Your task to perform on an android device: turn off translation in the chrome app Image 0: 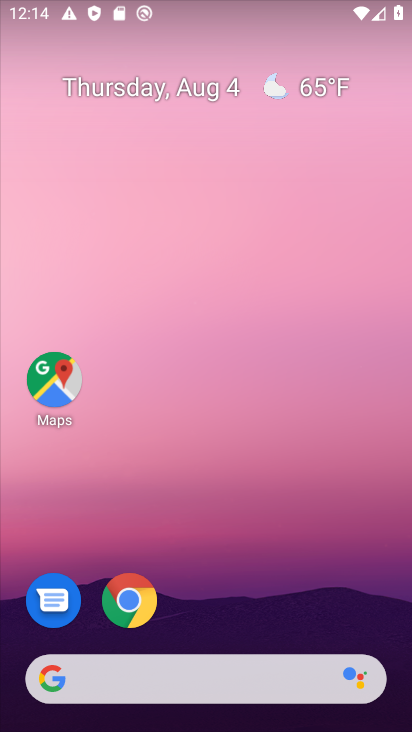
Step 0: drag from (216, 642) to (254, 8)
Your task to perform on an android device: turn off translation in the chrome app Image 1: 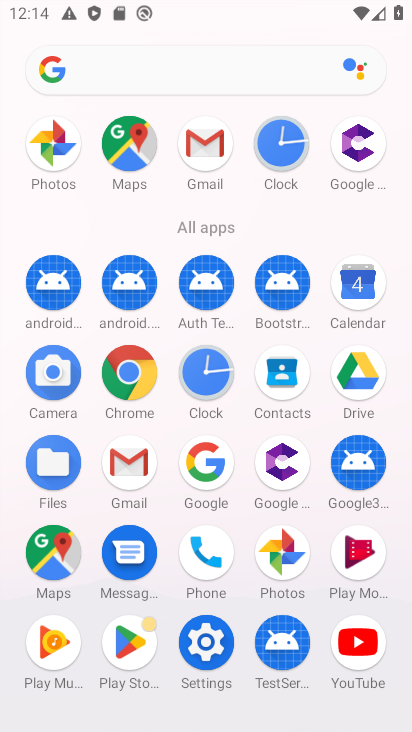
Step 1: click (288, 559)
Your task to perform on an android device: turn off translation in the chrome app Image 2: 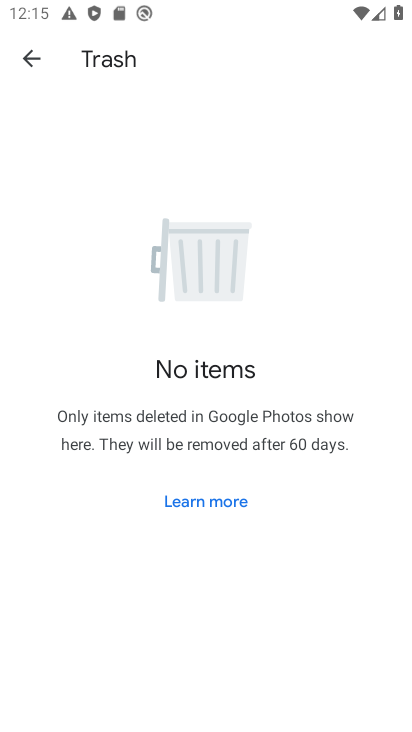
Step 2: press back button
Your task to perform on an android device: turn off translation in the chrome app Image 3: 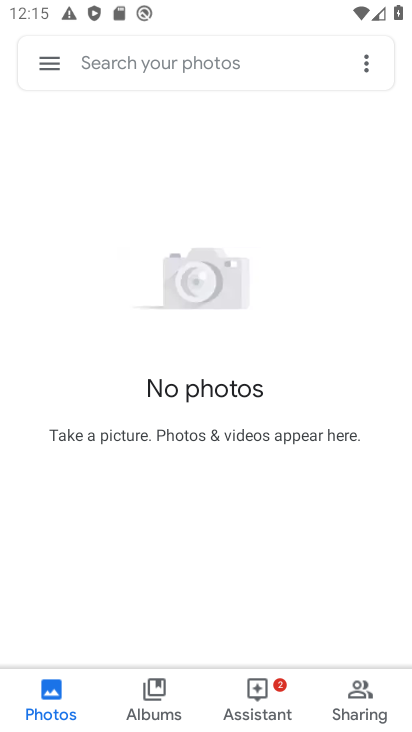
Step 3: press back button
Your task to perform on an android device: turn off translation in the chrome app Image 4: 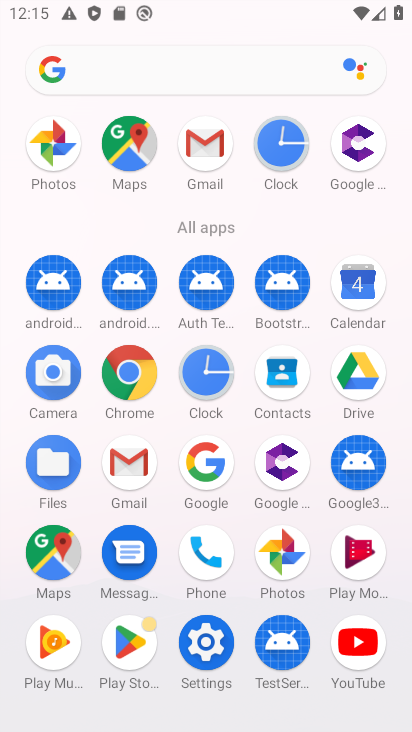
Step 4: click (135, 390)
Your task to perform on an android device: turn off translation in the chrome app Image 5: 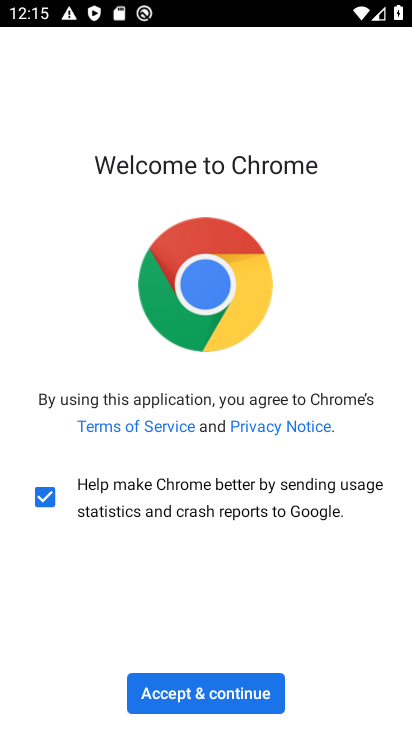
Step 5: click (143, 693)
Your task to perform on an android device: turn off translation in the chrome app Image 6: 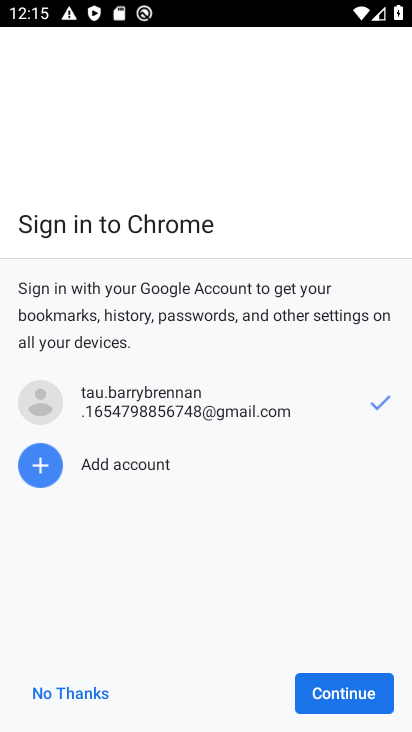
Step 6: click (310, 690)
Your task to perform on an android device: turn off translation in the chrome app Image 7: 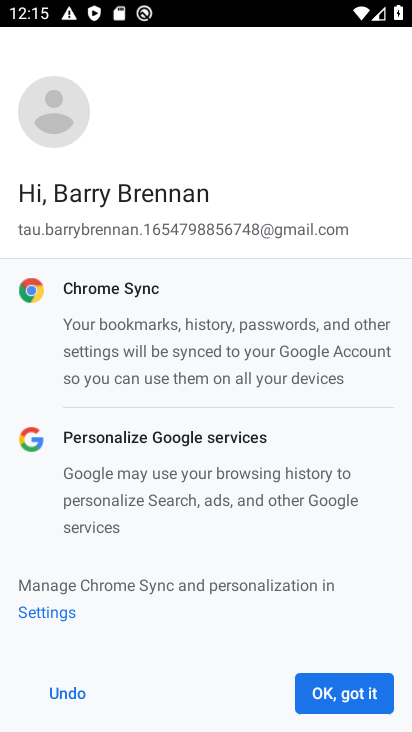
Step 7: click (361, 696)
Your task to perform on an android device: turn off translation in the chrome app Image 8: 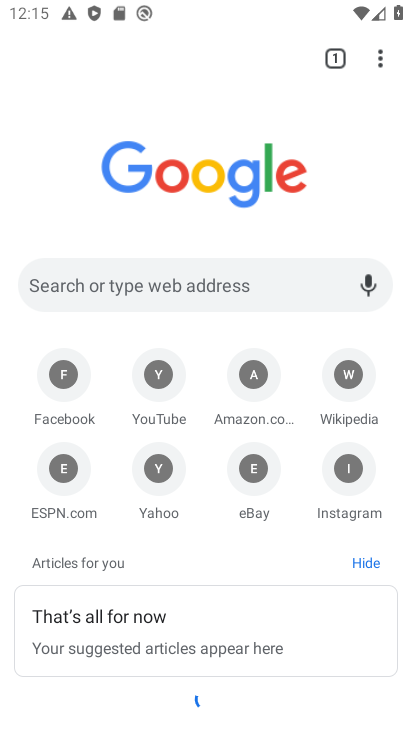
Step 8: click (373, 47)
Your task to perform on an android device: turn off translation in the chrome app Image 9: 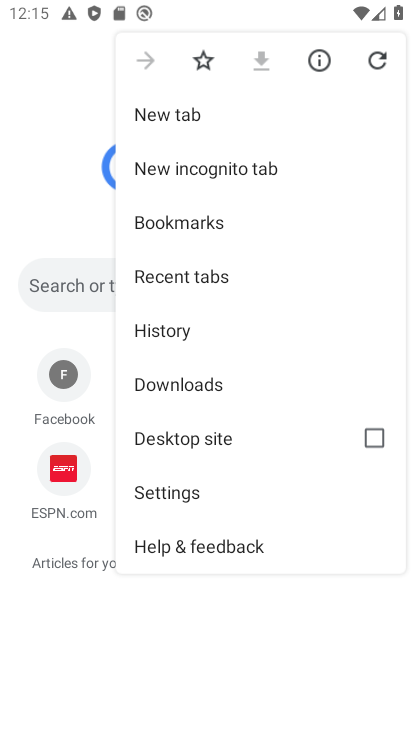
Step 9: click (174, 488)
Your task to perform on an android device: turn off translation in the chrome app Image 10: 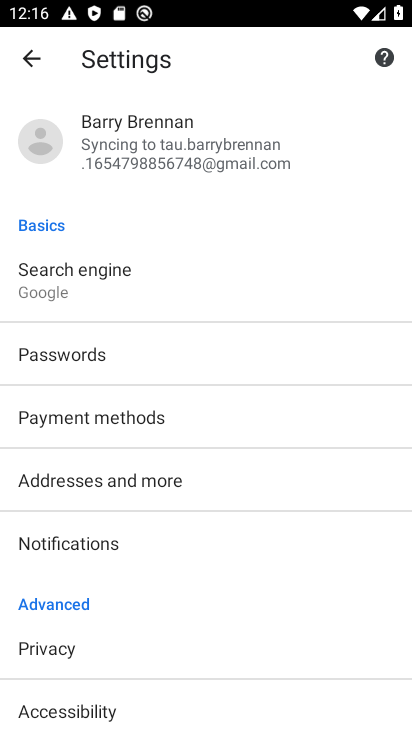
Step 10: drag from (174, 488) to (159, 72)
Your task to perform on an android device: turn off translation in the chrome app Image 11: 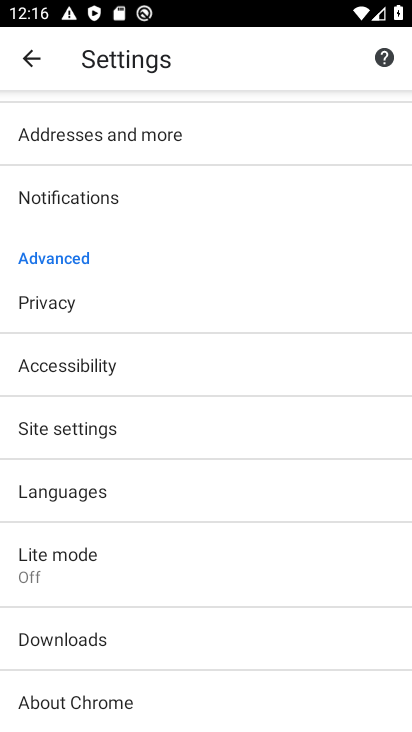
Step 11: click (83, 477)
Your task to perform on an android device: turn off translation in the chrome app Image 12: 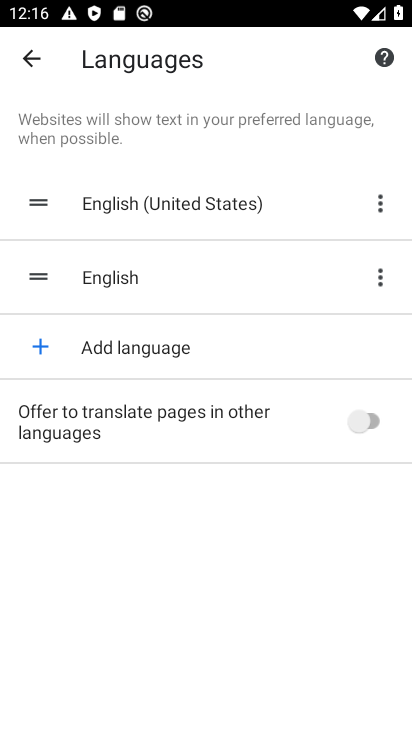
Step 12: task complete